Your task to perform on an android device: Go to Android settings Image 0: 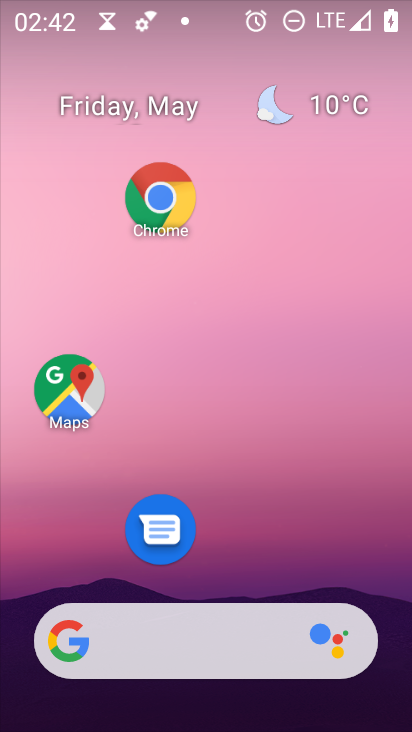
Step 0: drag from (249, 416) to (245, 253)
Your task to perform on an android device: Go to Android settings Image 1: 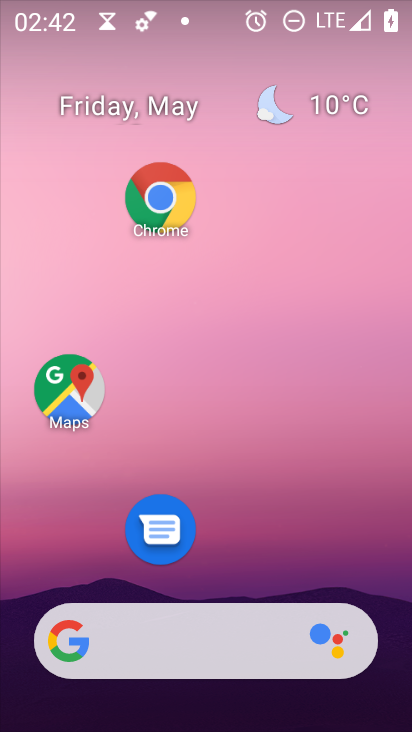
Step 1: drag from (216, 408) to (245, 242)
Your task to perform on an android device: Go to Android settings Image 2: 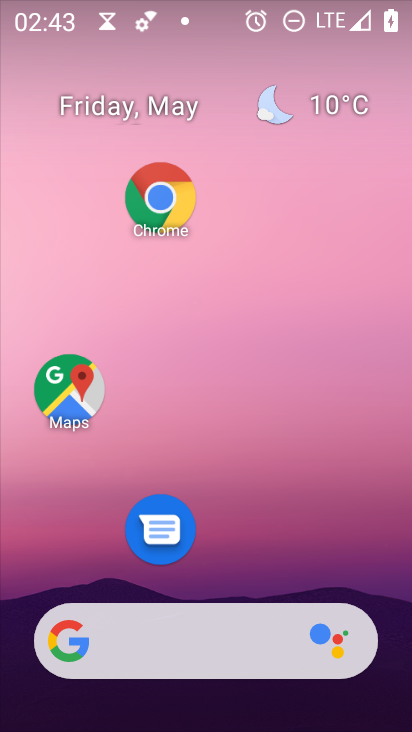
Step 2: drag from (259, 361) to (255, 186)
Your task to perform on an android device: Go to Android settings Image 3: 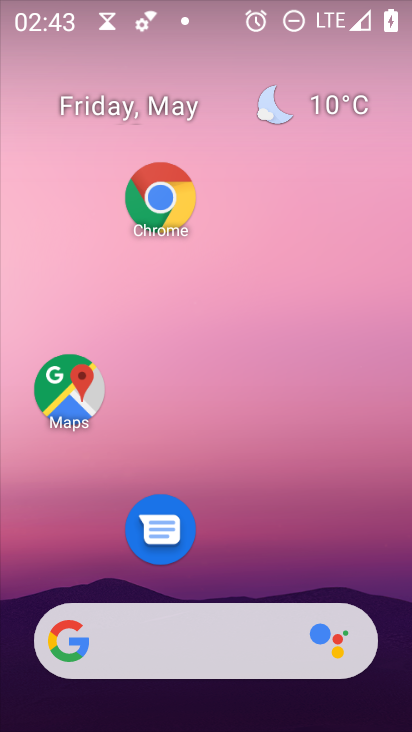
Step 3: drag from (226, 415) to (182, 215)
Your task to perform on an android device: Go to Android settings Image 4: 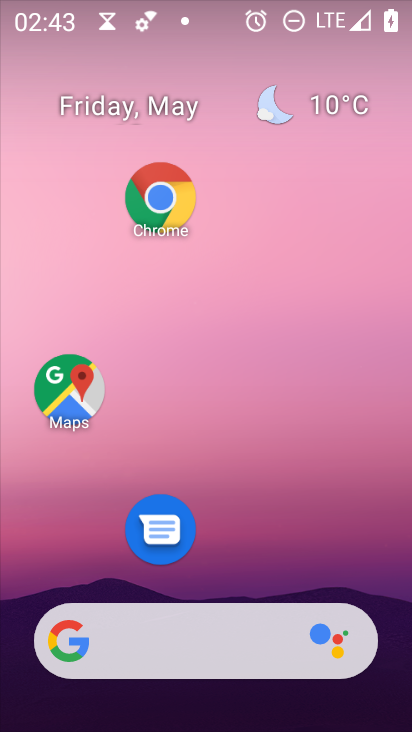
Step 4: drag from (263, 540) to (258, 191)
Your task to perform on an android device: Go to Android settings Image 5: 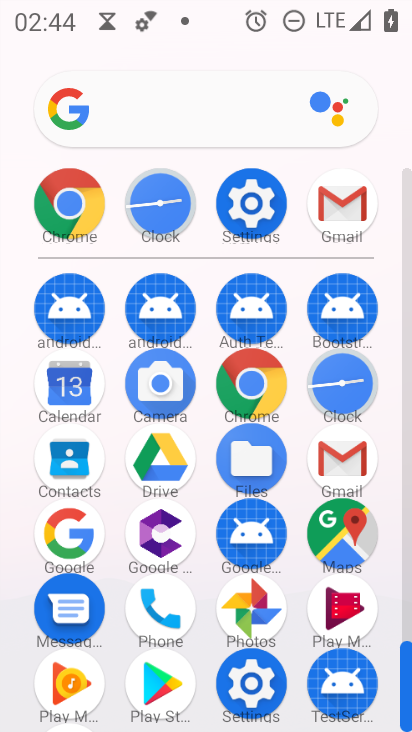
Step 5: click (262, 194)
Your task to perform on an android device: Go to Android settings Image 6: 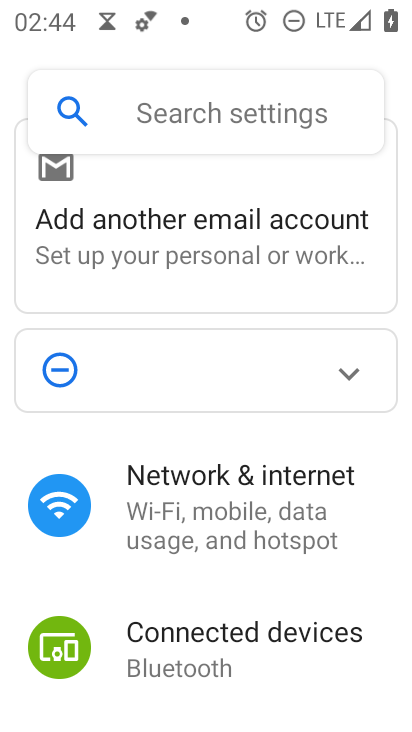
Step 6: task complete